Your task to perform on an android device: turn off location Image 0: 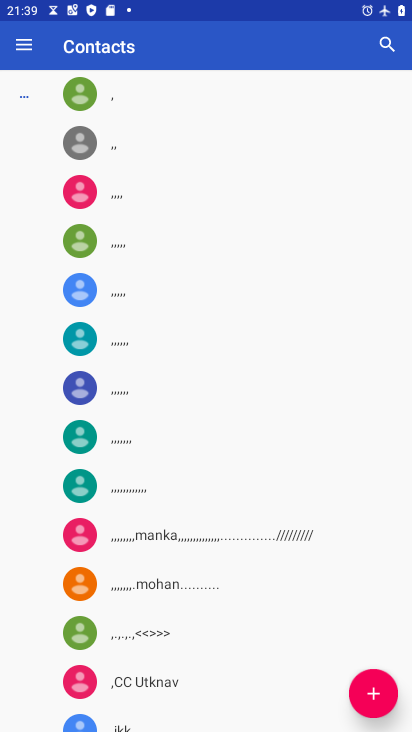
Step 0: press home button
Your task to perform on an android device: turn off location Image 1: 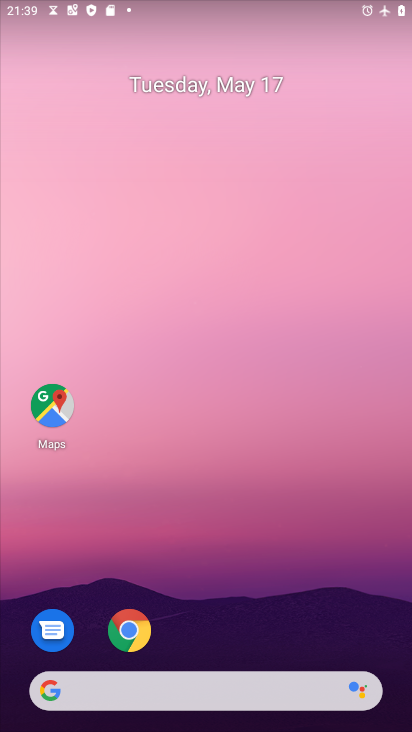
Step 1: drag from (215, 580) to (155, 100)
Your task to perform on an android device: turn off location Image 2: 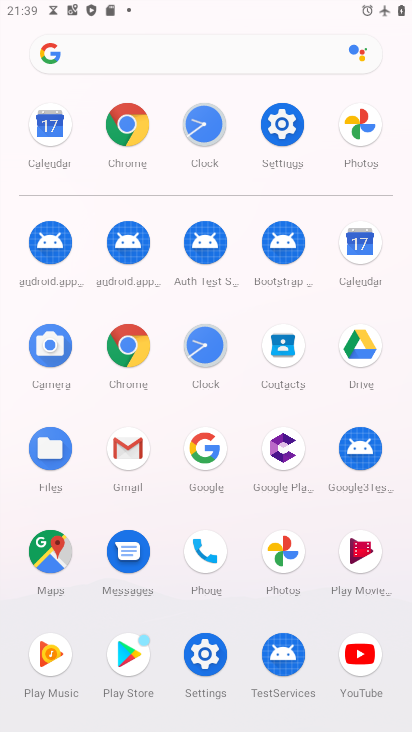
Step 2: click (284, 123)
Your task to perform on an android device: turn off location Image 3: 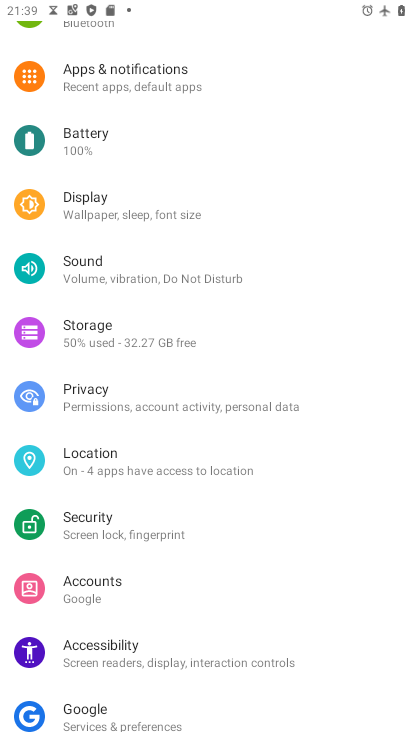
Step 3: click (119, 458)
Your task to perform on an android device: turn off location Image 4: 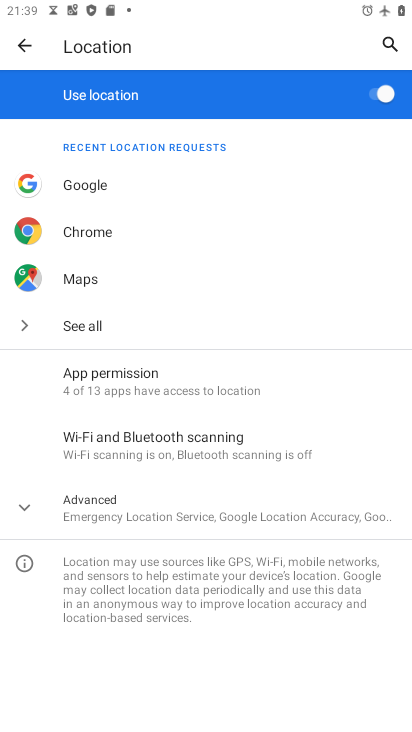
Step 4: click (384, 90)
Your task to perform on an android device: turn off location Image 5: 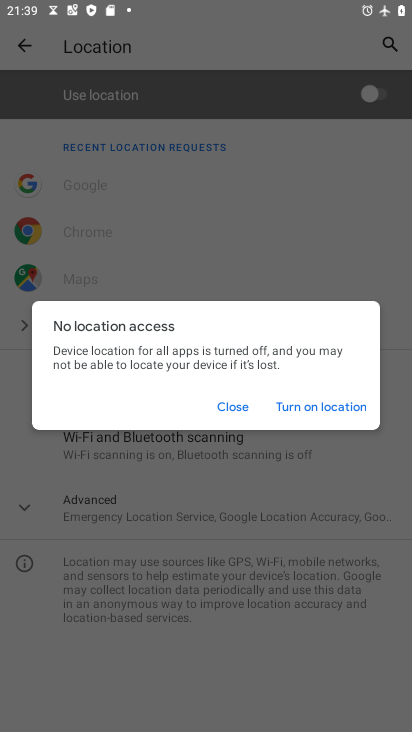
Step 5: task complete